Your task to perform on an android device: Search for Italian restaurants on Maps Image 0: 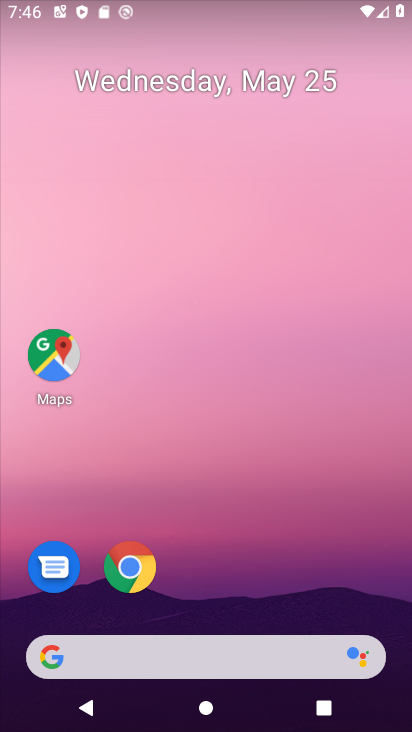
Step 0: click (46, 351)
Your task to perform on an android device: Search for Italian restaurants on Maps Image 1: 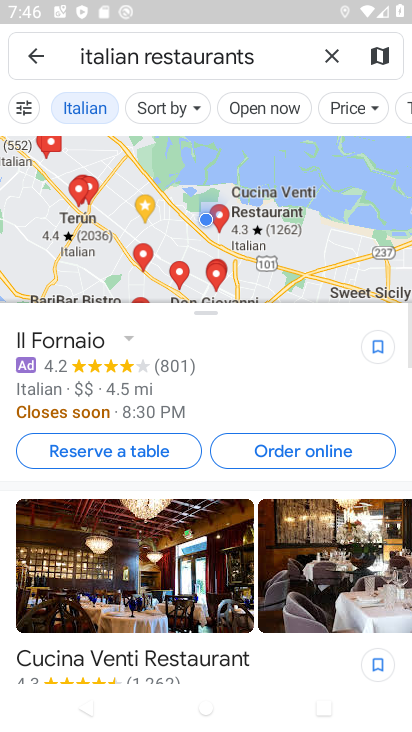
Step 1: task complete